Your task to perform on an android device: Open display settings Image 0: 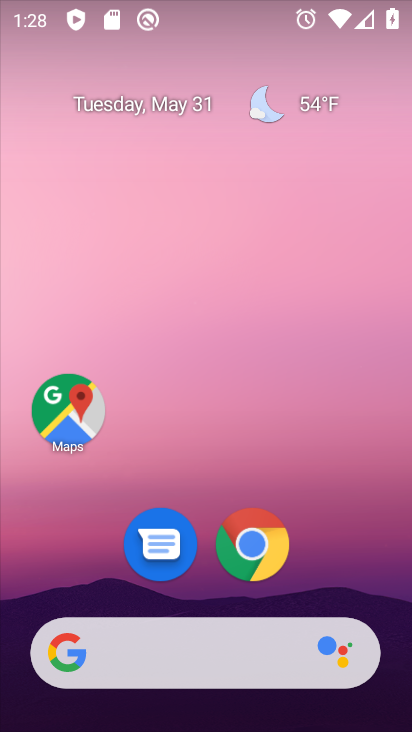
Step 0: drag from (329, 598) to (310, 20)
Your task to perform on an android device: Open display settings Image 1: 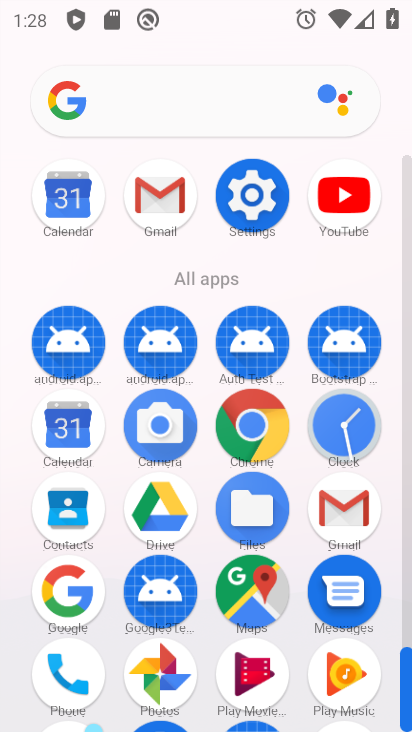
Step 1: click (250, 192)
Your task to perform on an android device: Open display settings Image 2: 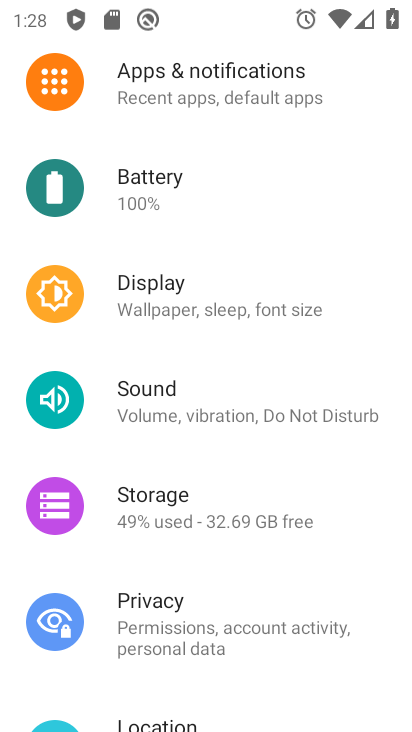
Step 2: click (153, 292)
Your task to perform on an android device: Open display settings Image 3: 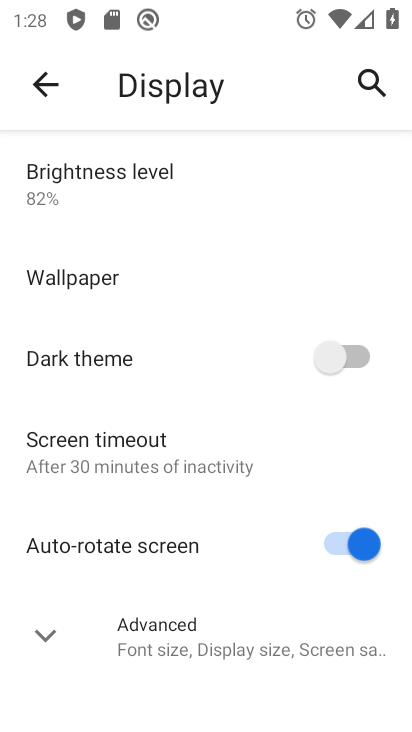
Step 3: task complete